Your task to perform on an android device: check android version Image 0: 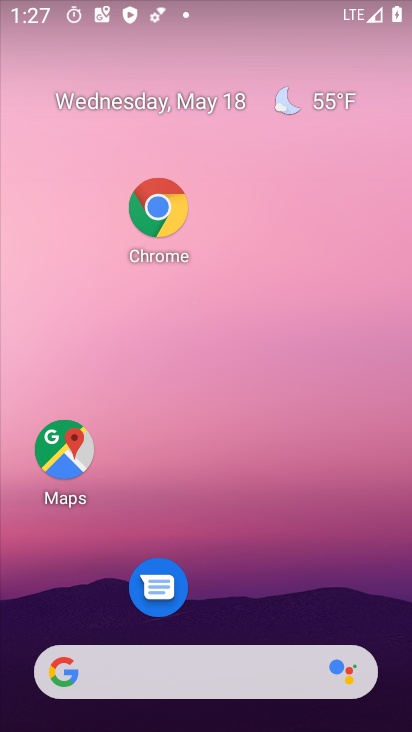
Step 0: drag from (258, 574) to (215, 163)
Your task to perform on an android device: check android version Image 1: 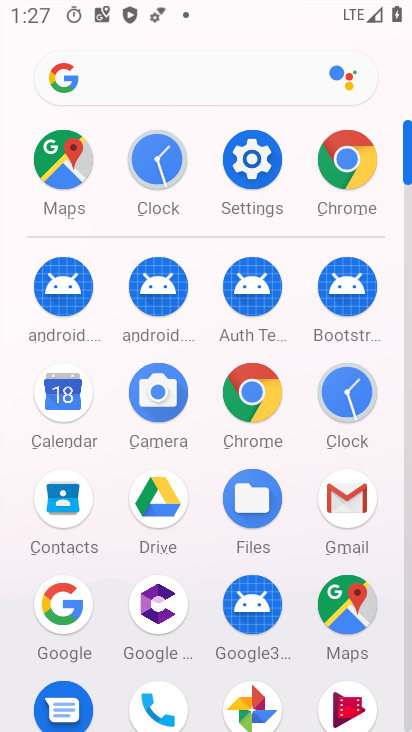
Step 1: click (249, 182)
Your task to perform on an android device: check android version Image 2: 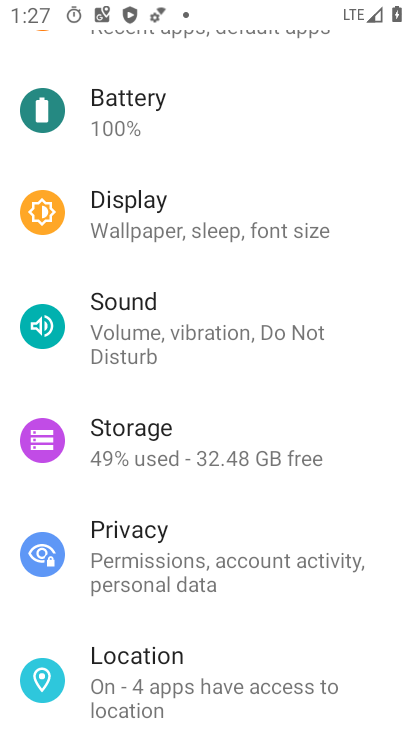
Step 2: drag from (208, 655) to (187, 293)
Your task to perform on an android device: check android version Image 3: 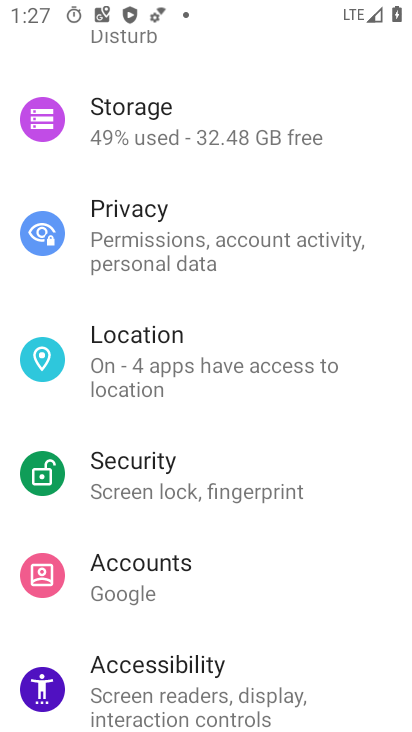
Step 3: drag from (202, 442) to (210, 238)
Your task to perform on an android device: check android version Image 4: 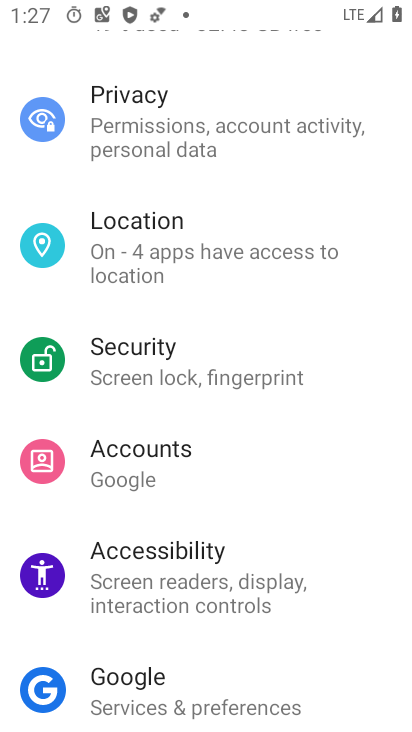
Step 4: click (204, 151)
Your task to perform on an android device: check android version Image 5: 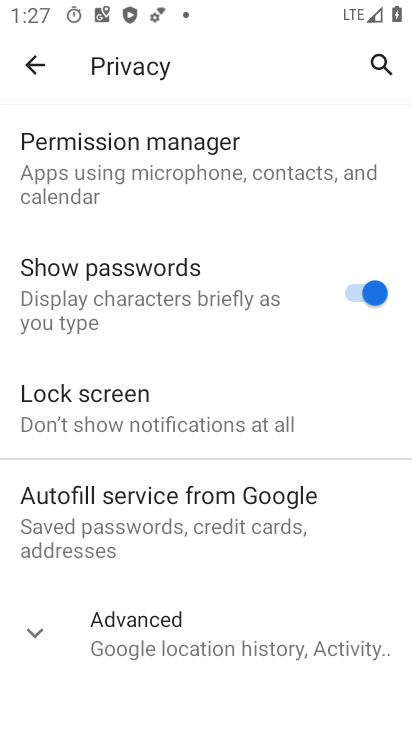
Step 5: press back button
Your task to perform on an android device: check android version Image 6: 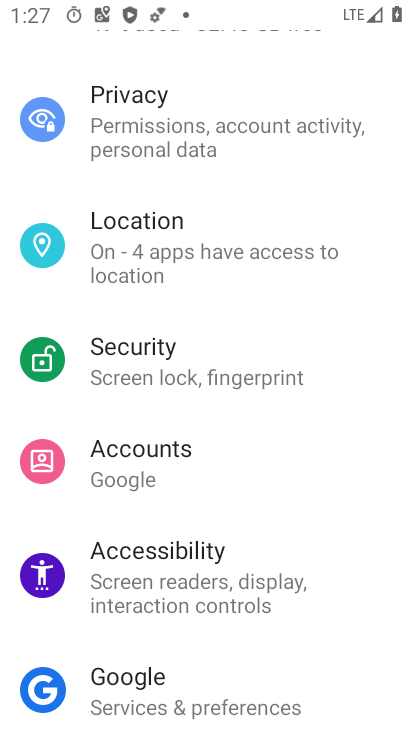
Step 6: drag from (224, 660) to (251, 295)
Your task to perform on an android device: check android version Image 7: 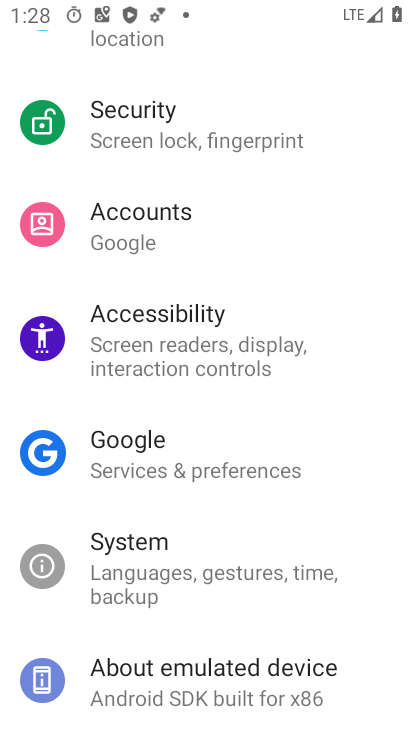
Step 7: click (218, 691)
Your task to perform on an android device: check android version Image 8: 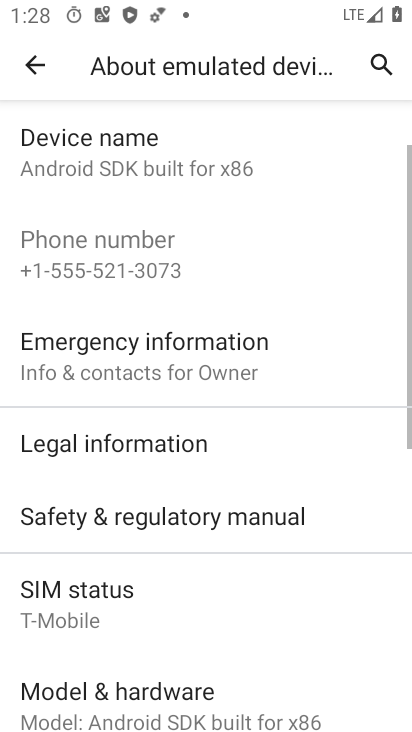
Step 8: click (237, 306)
Your task to perform on an android device: check android version Image 9: 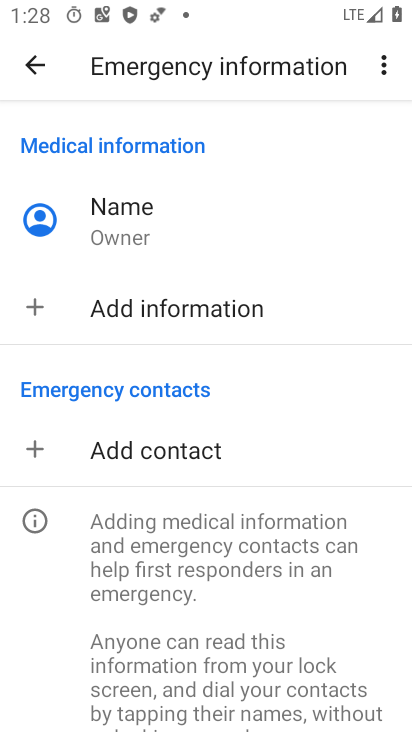
Step 9: press back button
Your task to perform on an android device: check android version Image 10: 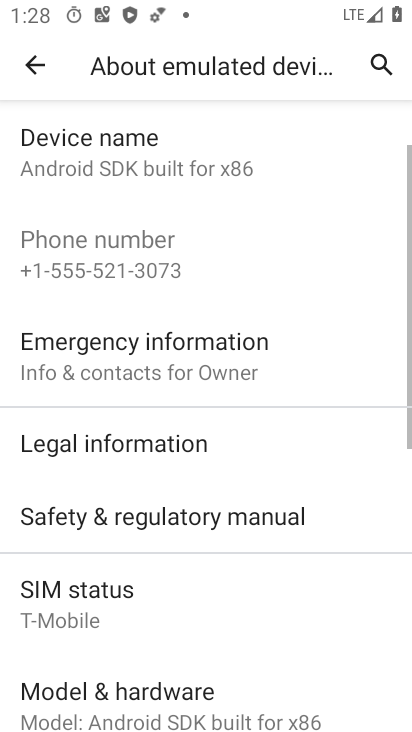
Step 10: drag from (188, 611) to (222, 258)
Your task to perform on an android device: check android version Image 11: 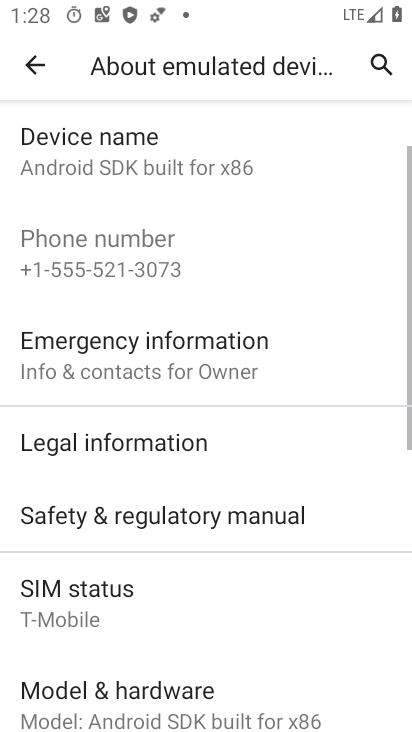
Step 11: click (274, 379)
Your task to perform on an android device: check android version Image 12: 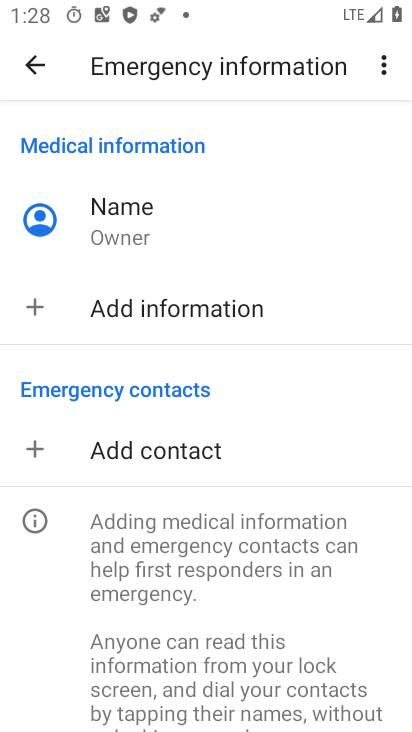
Step 12: click (31, 70)
Your task to perform on an android device: check android version Image 13: 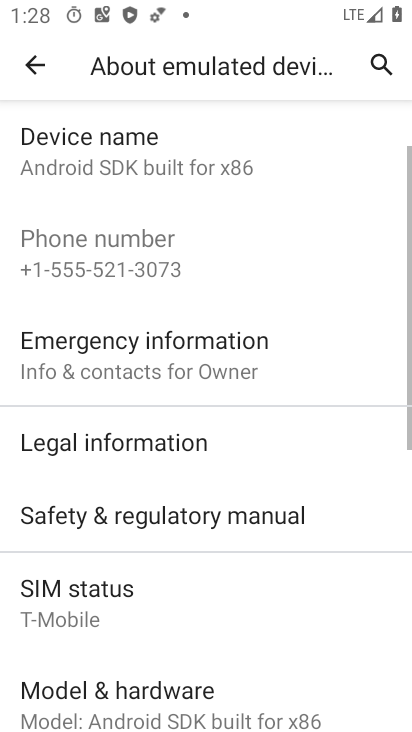
Step 13: task complete